Your task to perform on an android device: turn off javascript in the chrome app Image 0: 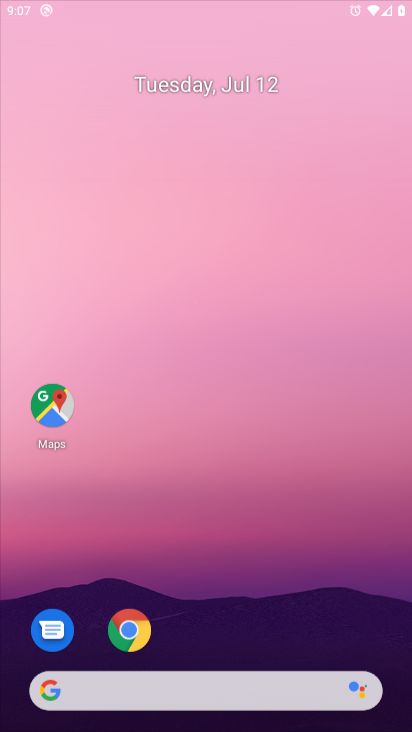
Step 0: press home button
Your task to perform on an android device: turn off javascript in the chrome app Image 1: 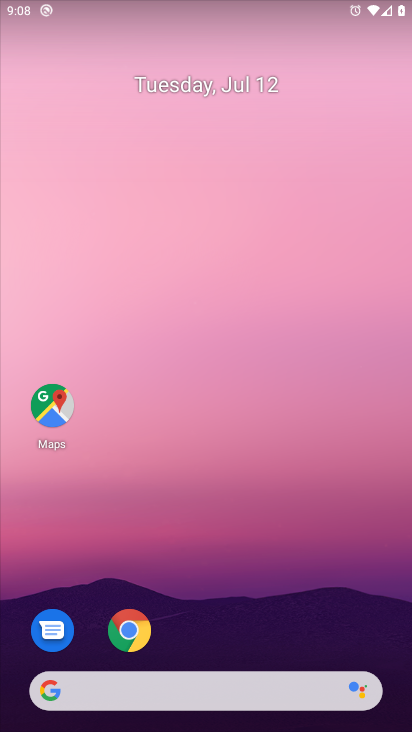
Step 1: drag from (211, 635) to (289, 189)
Your task to perform on an android device: turn off javascript in the chrome app Image 2: 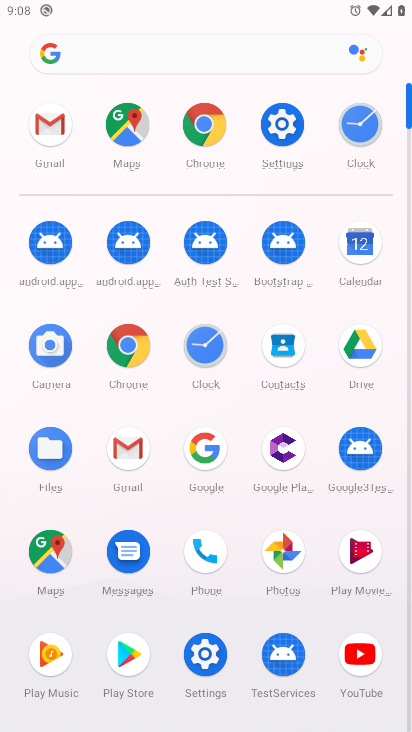
Step 2: click (211, 124)
Your task to perform on an android device: turn off javascript in the chrome app Image 3: 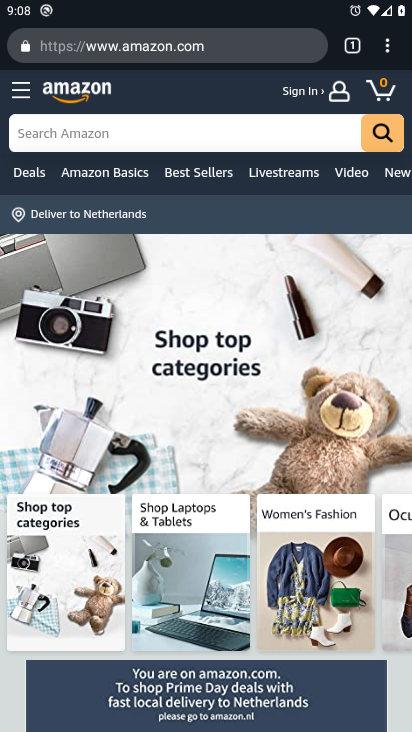
Step 3: click (386, 56)
Your task to perform on an android device: turn off javascript in the chrome app Image 4: 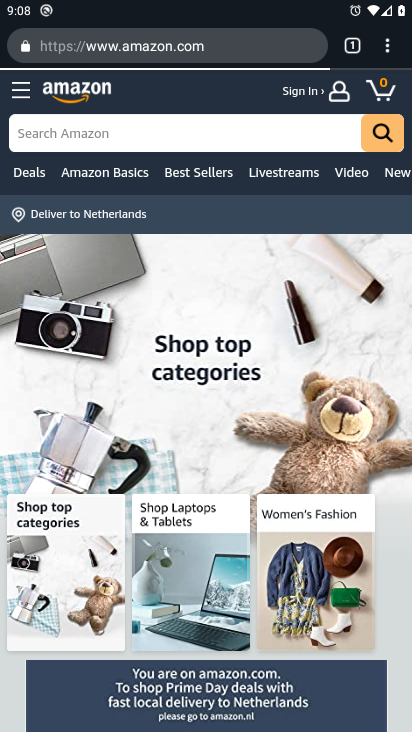
Step 4: drag from (386, 56) to (220, 552)
Your task to perform on an android device: turn off javascript in the chrome app Image 5: 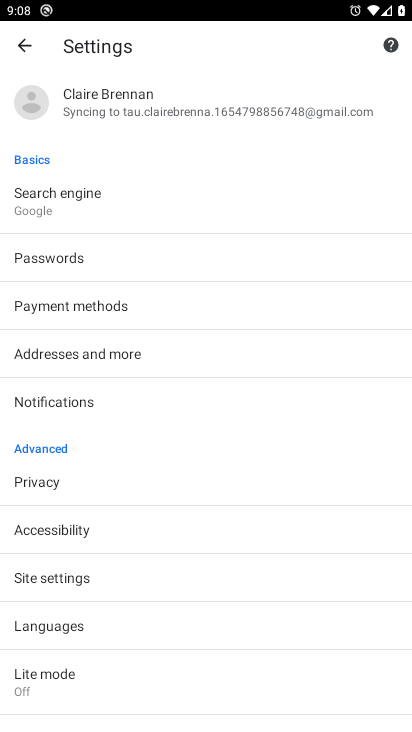
Step 5: click (48, 582)
Your task to perform on an android device: turn off javascript in the chrome app Image 6: 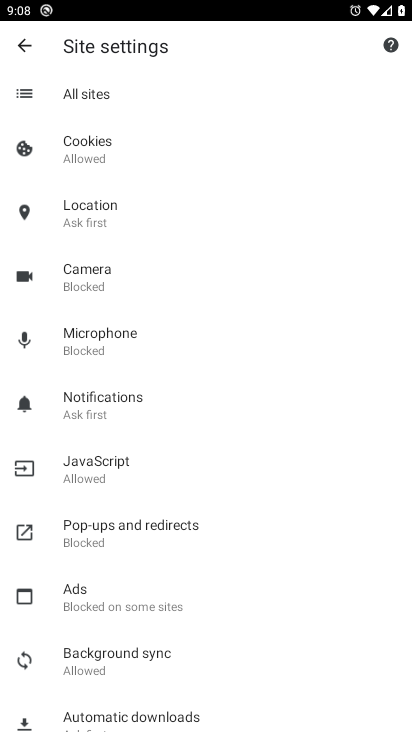
Step 6: click (88, 471)
Your task to perform on an android device: turn off javascript in the chrome app Image 7: 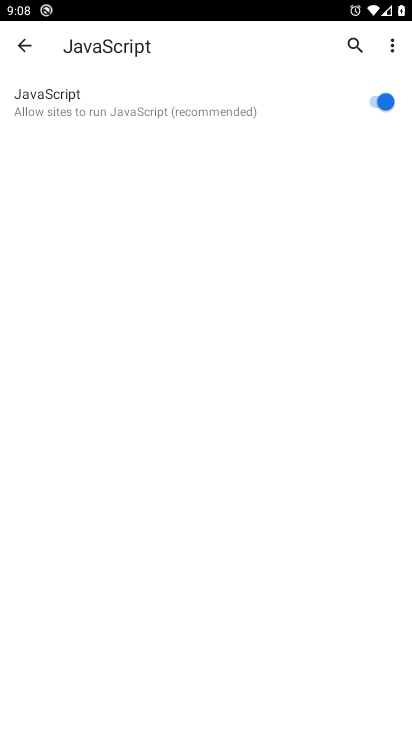
Step 7: click (381, 109)
Your task to perform on an android device: turn off javascript in the chrome app Image 8: 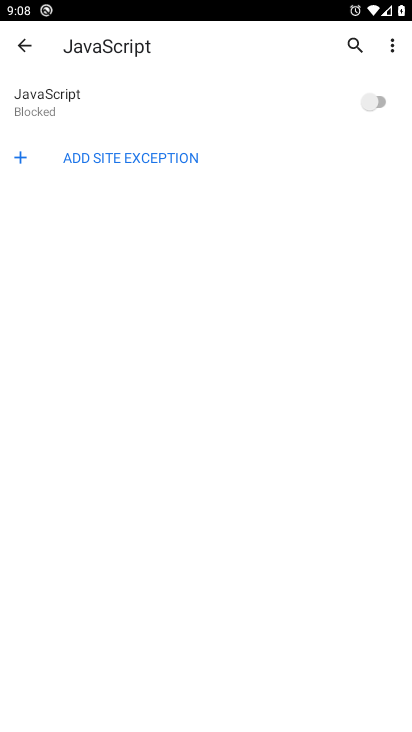
Step 8: task complete